Your task to perform on an android device: delete browsing data in the chrome app Image 0: 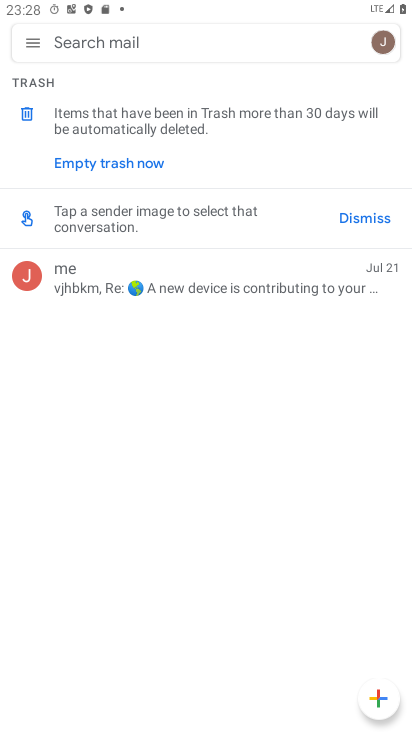
Step 0: press home button
Your task to perform on an android device: delete browsing data in the chrome app Image 1: 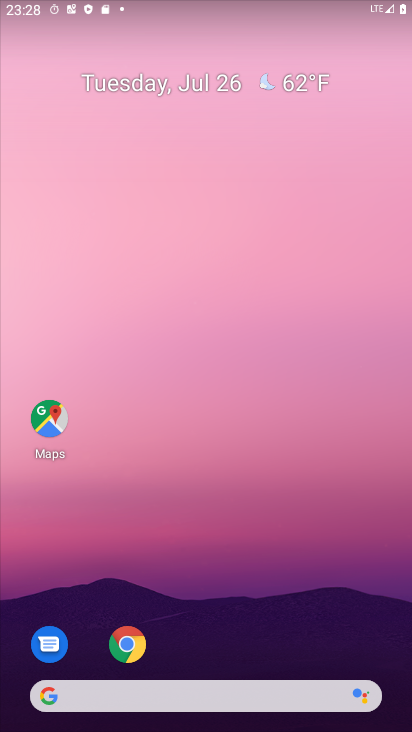
Step 1: click (127, 636)
Your task to perform on an android device: delete browsing data in the chrome app Image 2: 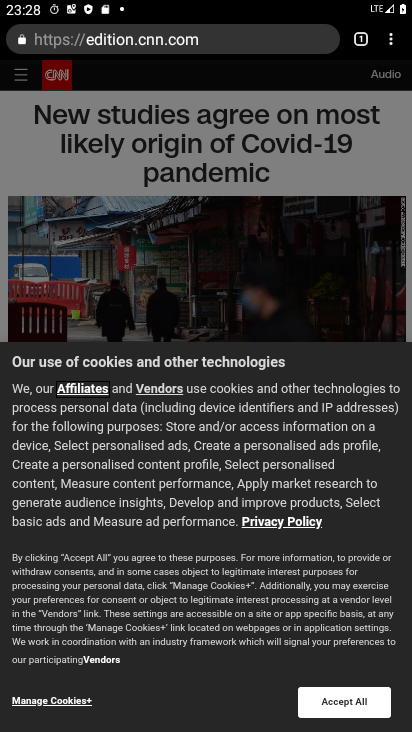
Step 2: click (395, 37)
Your task to perform on an android device: delete browsing data in the chrome app Image 3: 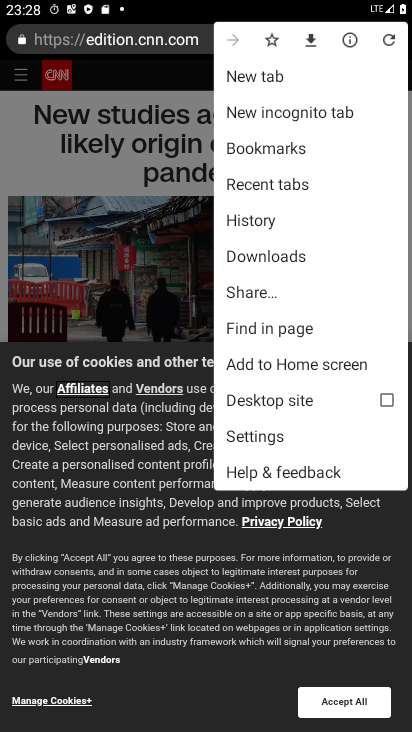
Step 3: click (240, 440)
Your task to perform on an android device: delete browsing data in the chrome app Image 4: 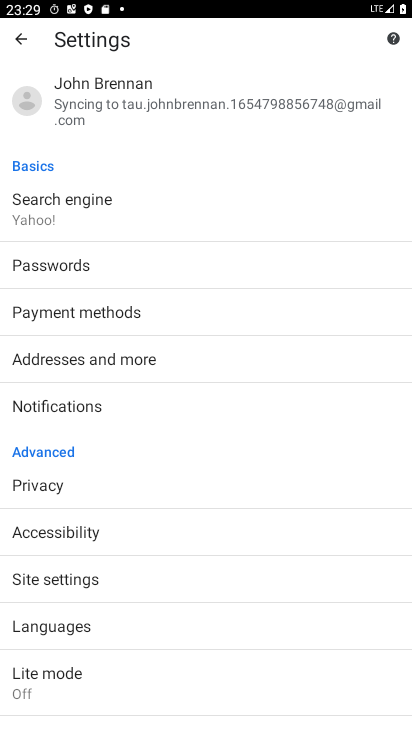
Step 4: click (47, 493)
Your task to perform on an android device: delete browsing data in the chrome app Image 5: 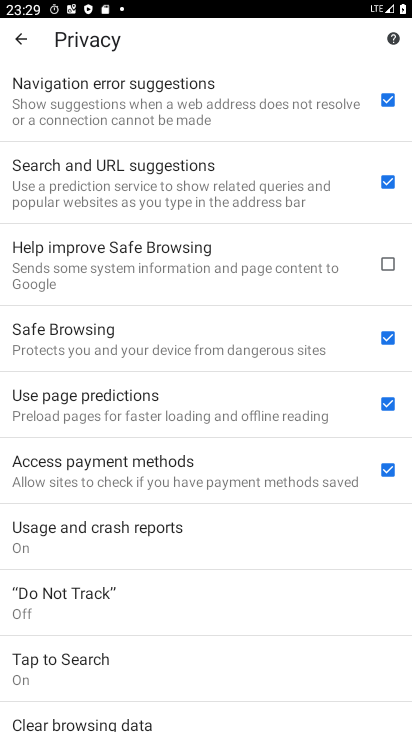
Step 5: drag from (174, 639) to (176, 281)
Your task to perform on an android device: delete browsing data in the chrome app Image 6: 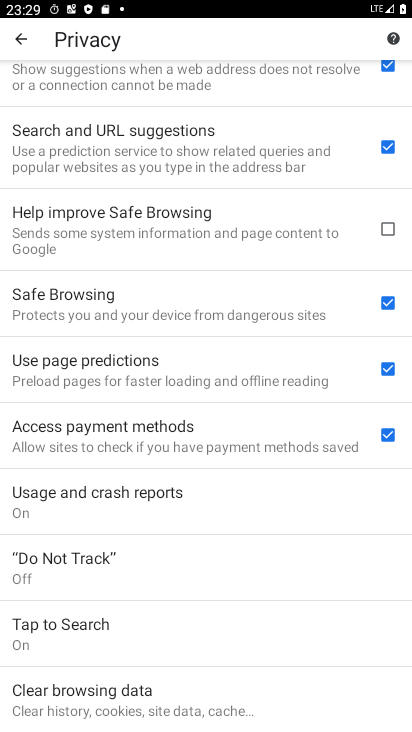
Step 6: click (97, 695)
Your task to perform on an android device: delete browsing data in the chrome app Image 7: 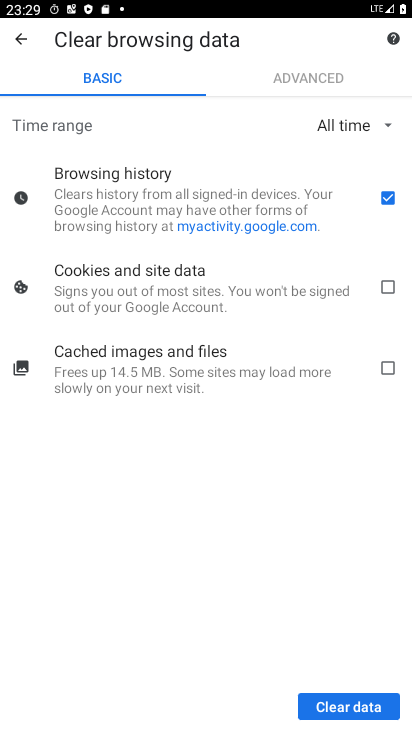
Step 7: click (351, 697)
Your task to perform on an android device: delete browsing data in the chrome app Image 8: 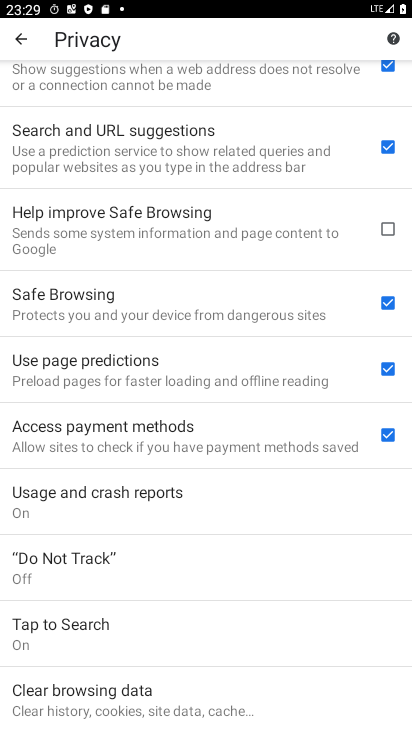
Step 8: task complete